Your task to perform on an android device: Do I have any events this weekend? Image 0: 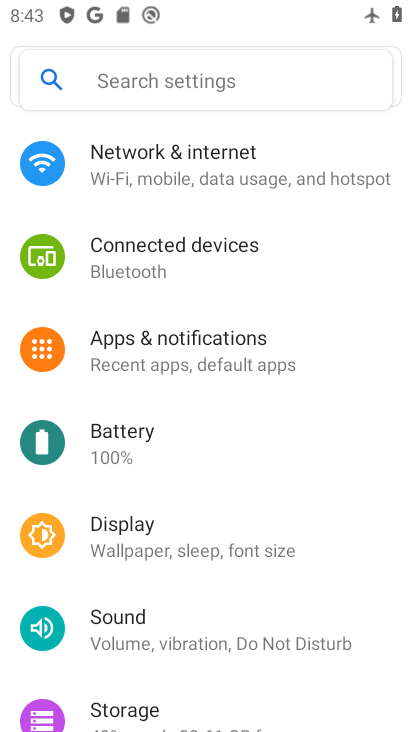
Step 0: press home button
Your task to perform on an android device: Do I have any events this weekend? Image 1: 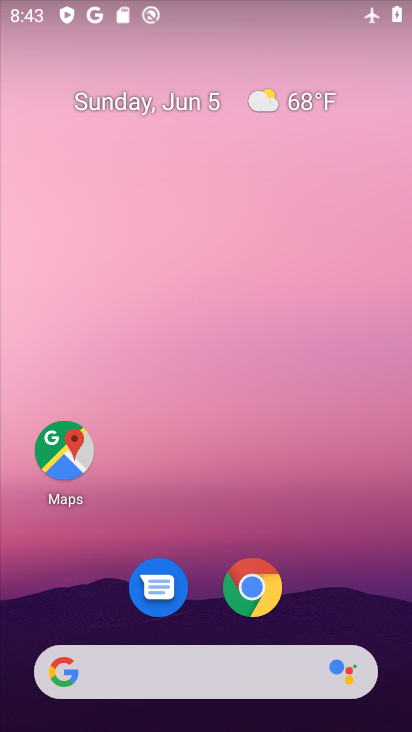
Step 1: drag from (356, 600) to (302, 166)
Your task to perform on an android device: Do I have any events this weekend? Image 2: 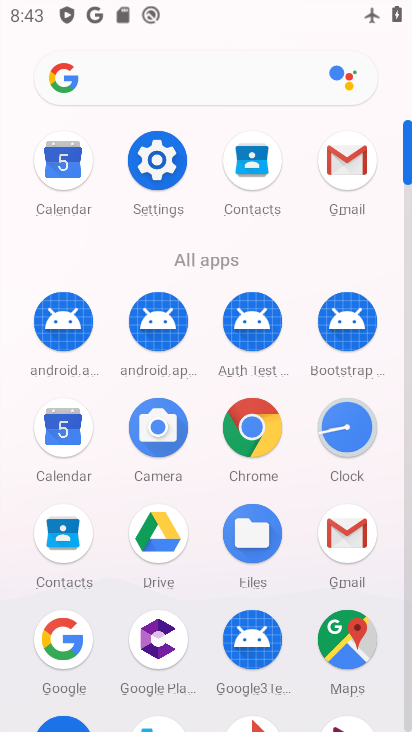
Step 2: click (64, 417)
Your task to perform on an android device: Do I have any events this weekend? Image 3: 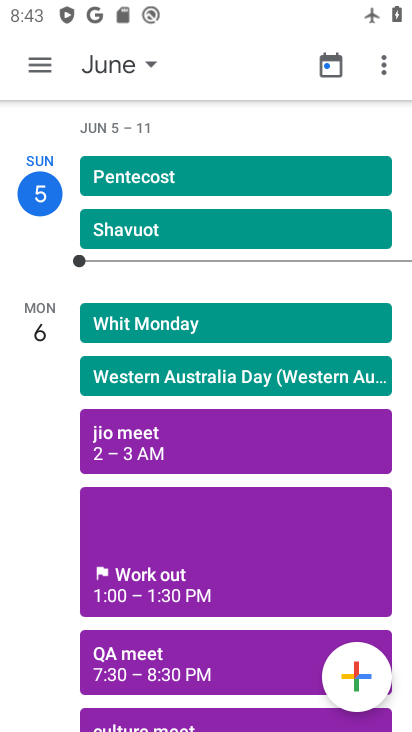
Step 3: click (41, 63)
Your task to perform on an android device: Do I have any events this weekend? Image 4: 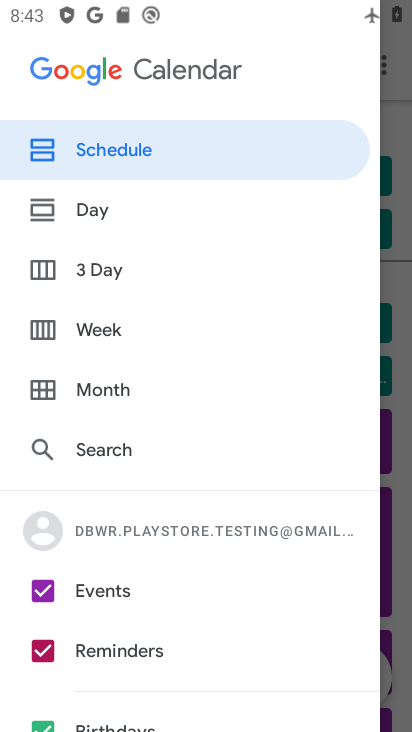
Step 4: click (124, 331)
Your task to perform on an android device: Do I have any events this weekend? Image 5: 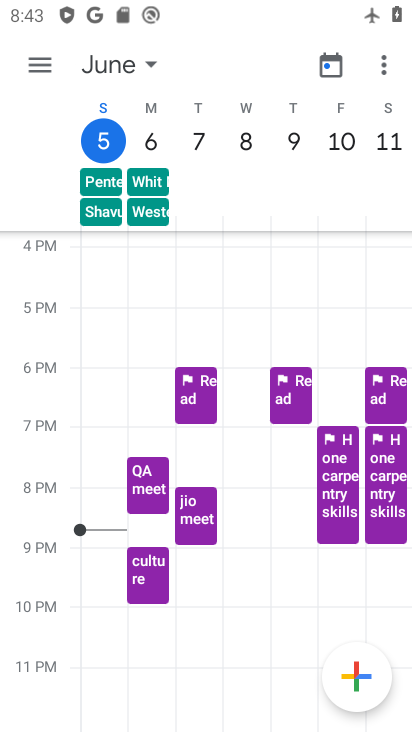
Step 5: task complete